Your task to perform on an android device: Go to ESPN.com Image 0: 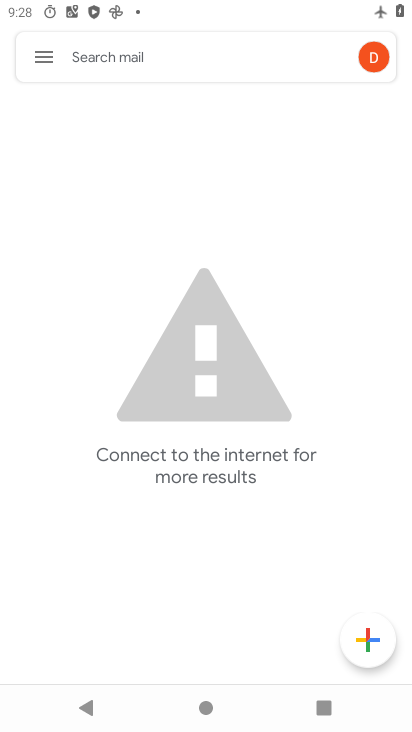
Step 0: press home button
Your task to perform on an android device: Go to ESPN.com Image 1: 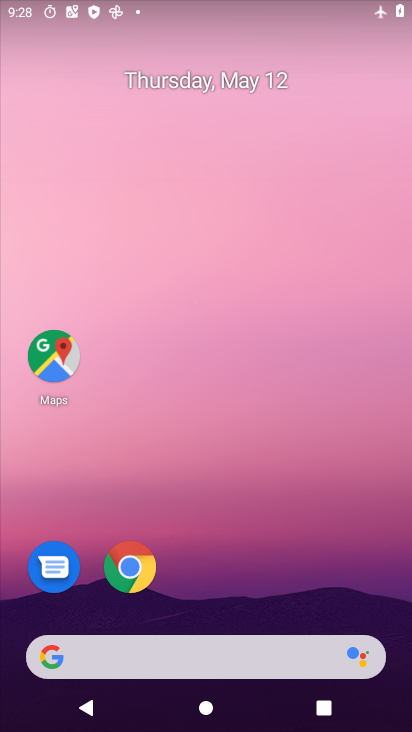
Step 1: click (148, 576)
Your task to perform on an android device: Go to ESPN.com Image 2: 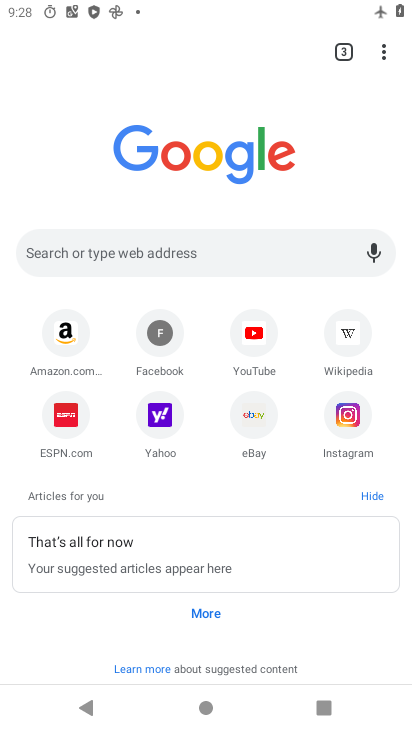
Step 2: click (79, 425)
Your task to perform on an android device: Go to ESPN.com Image 3: 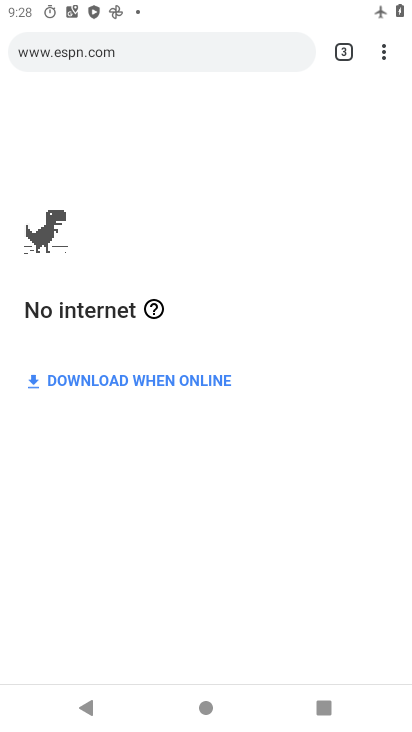
Step 3: task complete